Your task to perform on an android device: check the backup settings in the google photos Image 0: 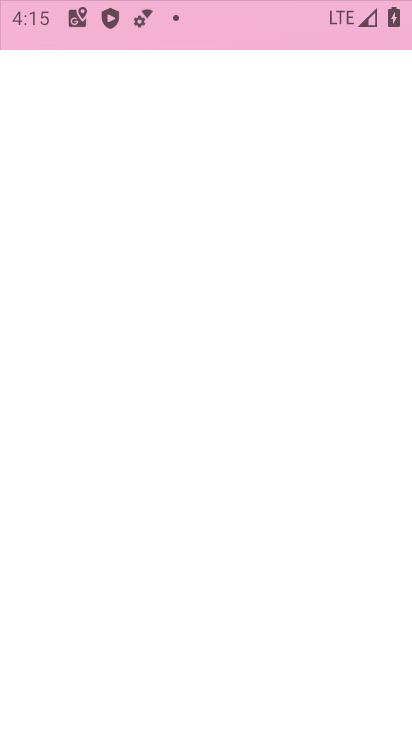
Step 0: drag from (212, 165) to (230, 6)
Your task to perform on an android device: check the backup settings in the google photos Image 1: 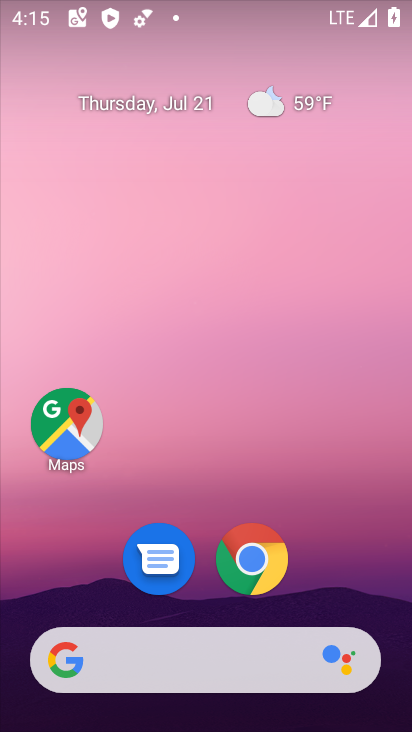
Step 1: drag from (69, 587) to (207, 12)
Your task to perform on an android device: check the backup settings in the google photos Image 2: 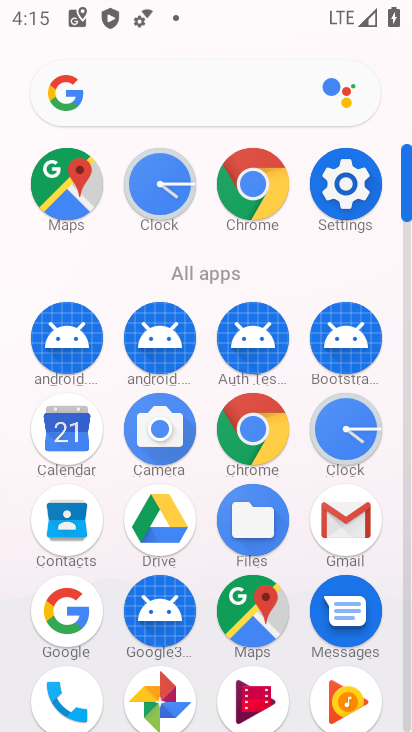
Step 2: click (152, 704)
Your task to perform on an android device: check the backup settings in the google photos Image 3: 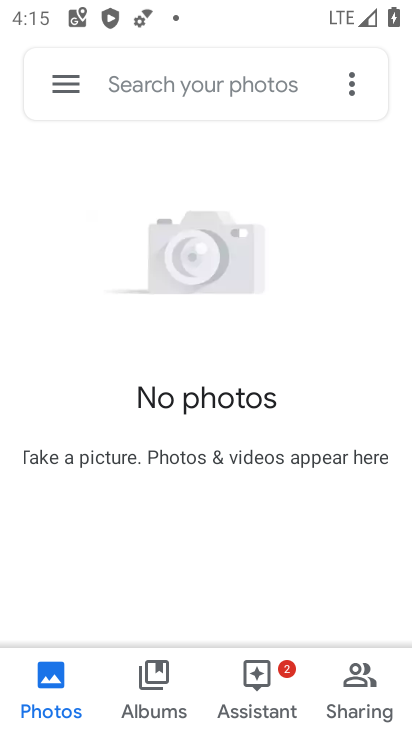
Step 3: click (60, 75)
Your task to perform on an android device: check the backup settings in the google photos Image 4: 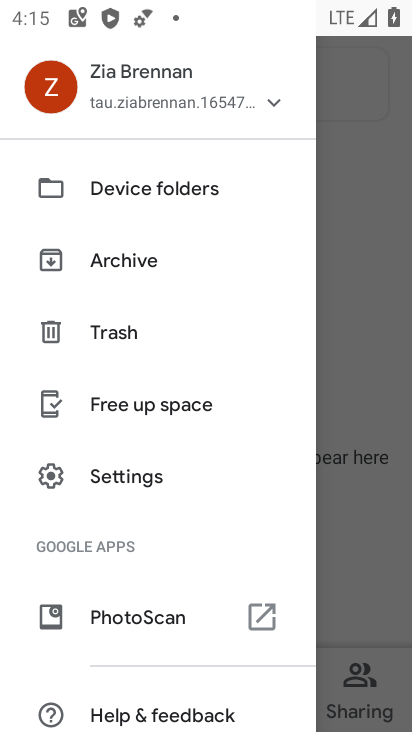
Step 4: click (110, 482)
Your task to perform on an android device: check the backup settings in the google photos Image 5: 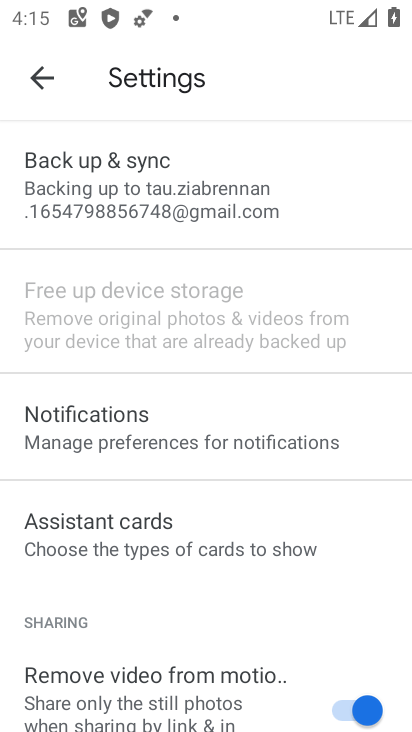
Step 5: click (176, 191)
Your task to perform on an android device: check the backup settings in the google photos Image 6: 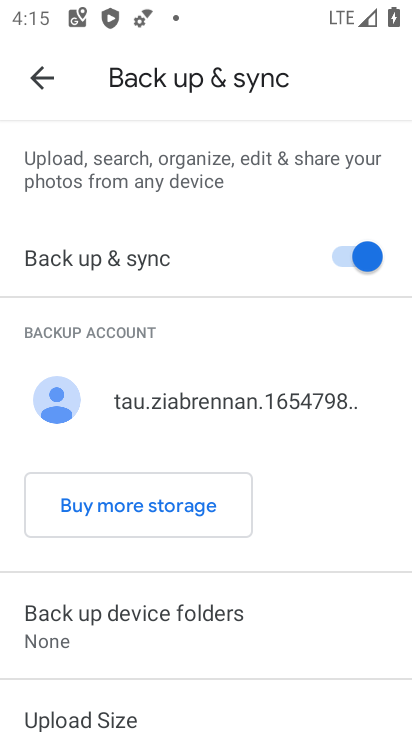
Step 6: task complete